Your task to perform on an android device: How much does a 2 bedroom apartment rent for in New York? Image 0: 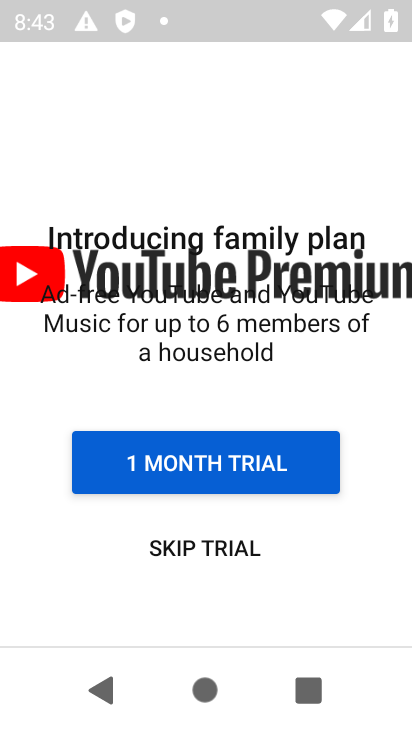
Step 0: press home button
Your task to perform on an android device: How much does a 2 bedroom apartment rent for in New York? Image 1: 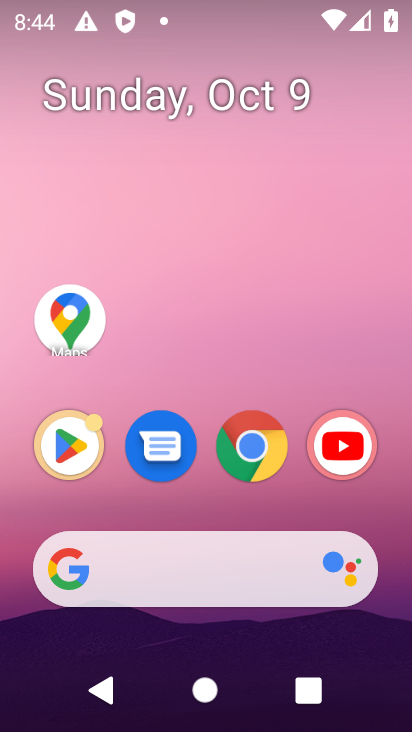
Step 1: click (260, 451)
Your task to perform on an android device: How much does a 2 bedroom apartment rent for in New York? Image 2: 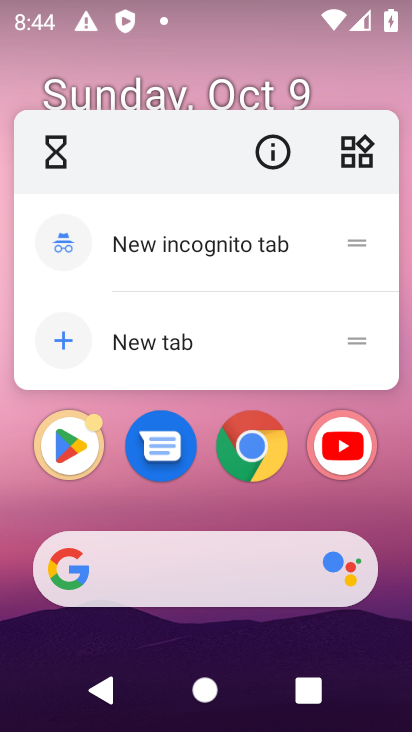
Step 2: click (263, 444)
Your task to perform on an android device: How much does a 2 bedroom apartment rent for in New York? Image 3: 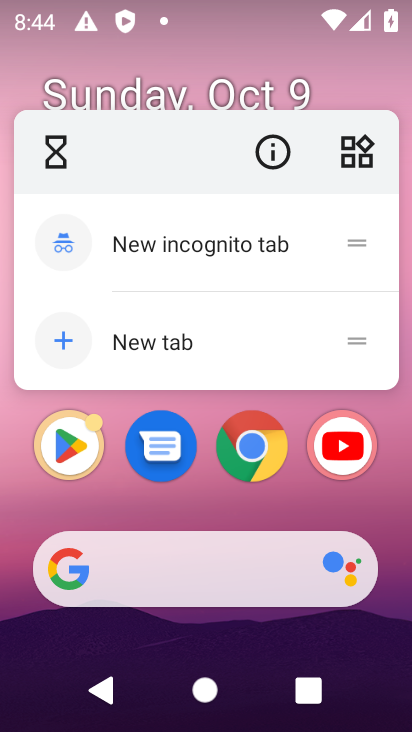
Step 3: click (256, 460)
Your task to perform on an android device: How much does a 2 bedroom apartment rent for in New York? Image 4: 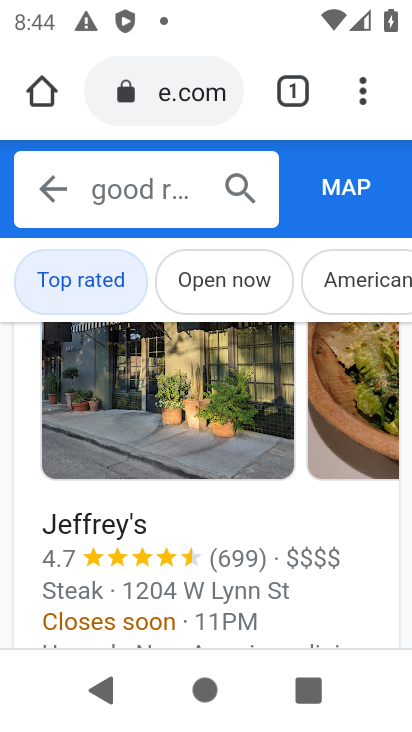
Step 4: click (190, 97)
Your task to perform on an android device: How much does a 2 bedroom apartment rent for in New York? Image 5: 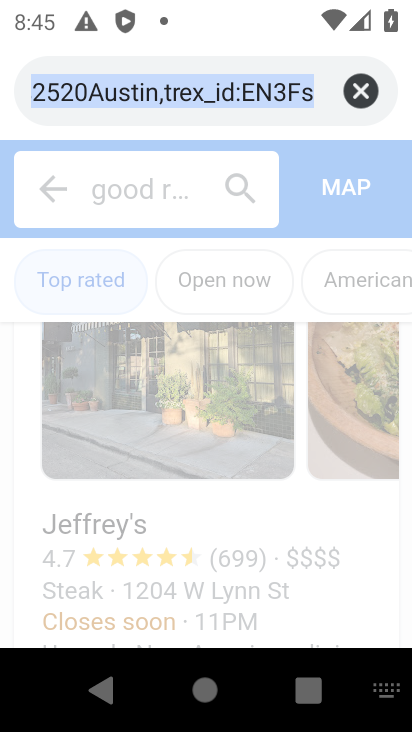
Step 5: type "2 bedroom apartment rent for in New York"
Your task to perform on an android device: How much does a 2 bedroom apartment rent for in New York? Image 6: 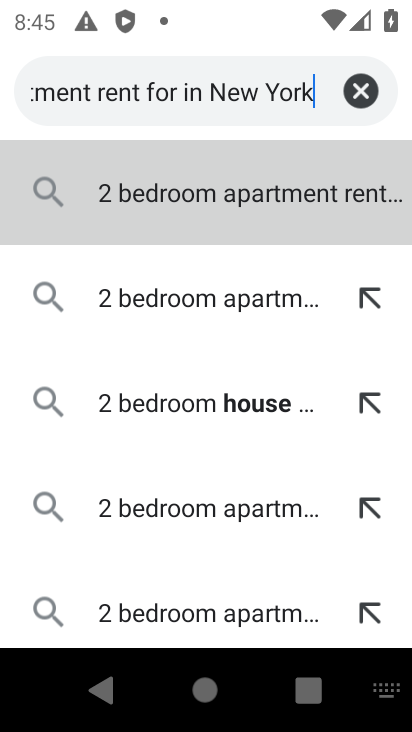
Step 6: press enter
Your task to perform on an android device: How much does a 2 bedroom apartment rent for in New York? Image 7: 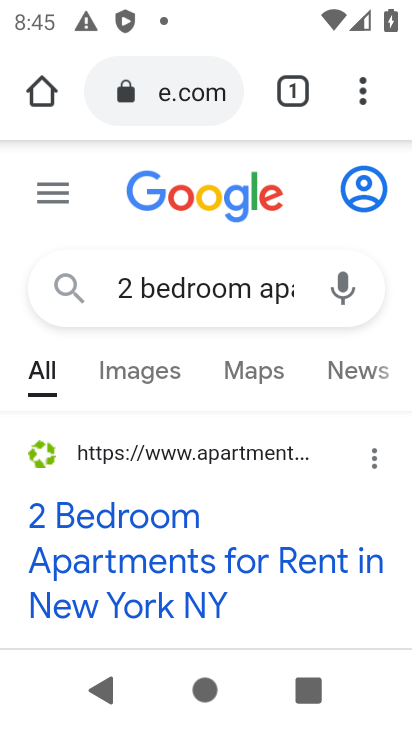
Step 7: drag from (295, 502) to (245, 263)
Your task to perform on an android device: How much does a 2 bedroom apartment rent for in New York? Image 8: 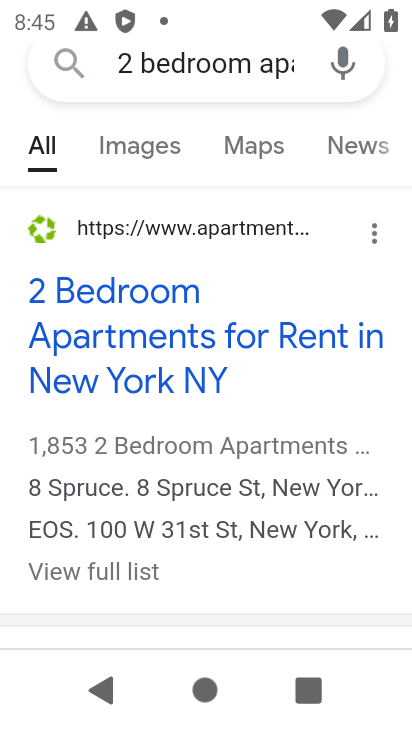
Step 8: click (139, 338)
Your task to perform on an android device: How much does a 2 bedroom apartment rent for in New York? Image 9: 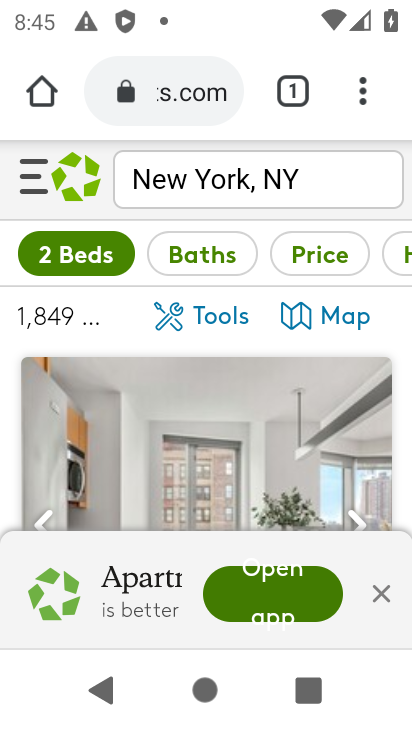
Step 9: task complete